Your task to perform on an android device: Add "usb-a to usb-b" to the cart on newegg Image 0: 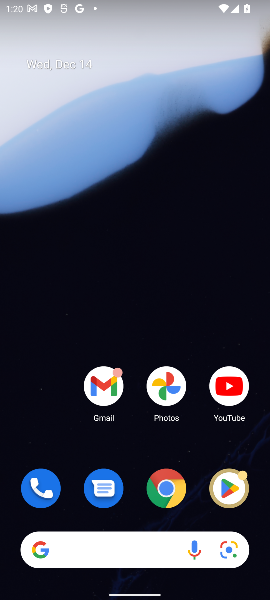
Step 0: press home button
Your task to perform on an android device: Add "usb-a to usb-b" to the cart on newegg Image 1: 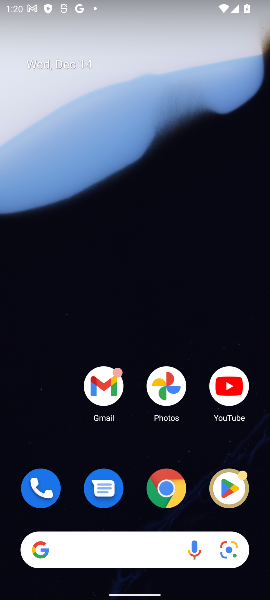
Step 1: drag from (125, 534) to (190, 189)
Your task to perform on an android device: Add "usb-a to usb-b" to the cart on newegg Image 2: 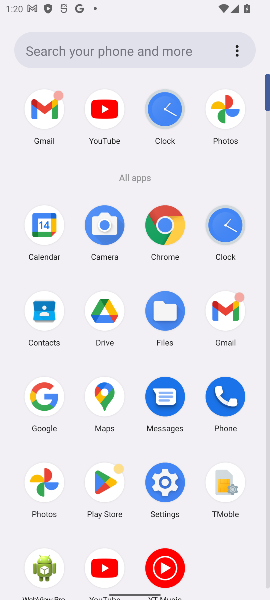
Step 2: click (43, 396)
Your task to perform on an android device: Add "usb-a to usb-b" to the cart on newegg Image 3: 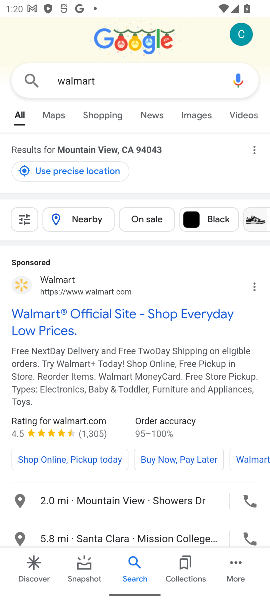
Step 3: click (94, 85)
Your task to perform on an android device: Add "usb-a to usb-b" to the cart on newegg Image 4: 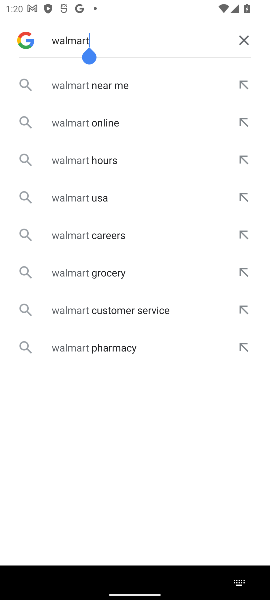
Step 4: click (244, 43)
Your task to perform on an android device: Add "usb-a to usb-b" to the cart on newegg Image 5: 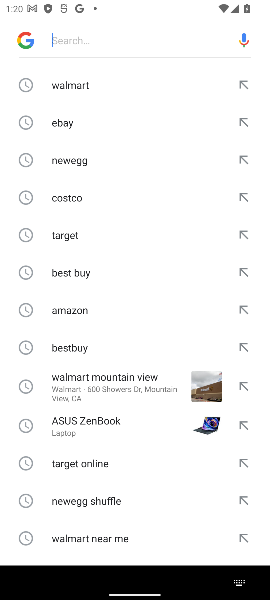
Step 5: click (66, 166)
Your task to perform on an android device: Add "usb-a to usb-b" to the cart on newegg Image 6: 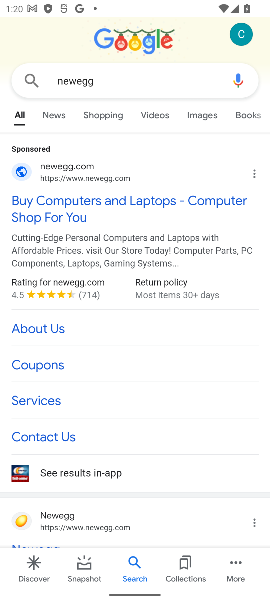
Step 6: click (75, 215)
Your task to perform on an android device: Add "usb-a to usb-b" to the cart on newegg Image 7: 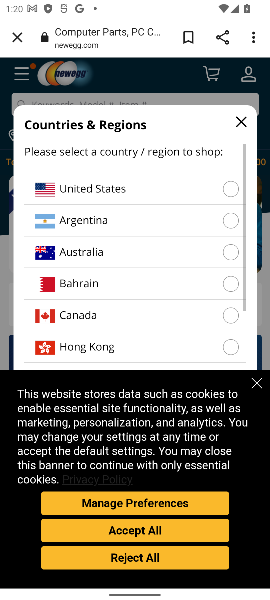
Step 7: click (241, 123)
Your task to perform on an android device: Add "usb-a to usb-b" to the cart on newegg Image 8: 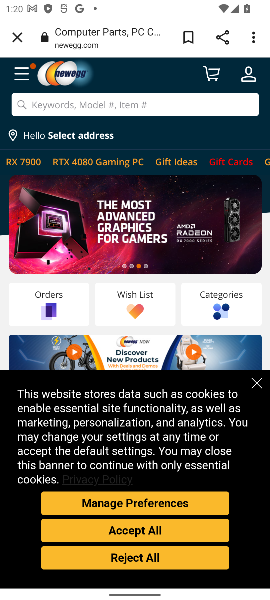
Step 8: click (36, 108)
Your task to perform on an android device: Add "usb-a to usb-b" to the cart on newegg Image 9: 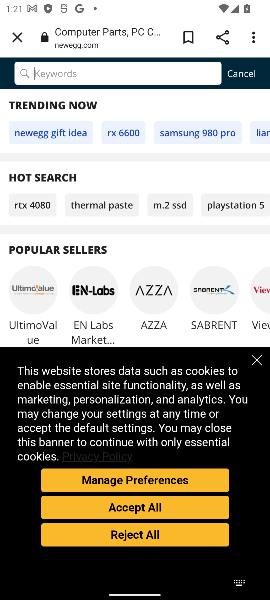
Step 9: type "usb-a to usb-b"
Your task to perform on an android device: Add "usb-a to usb-b" to the cart on newegg Image 10: 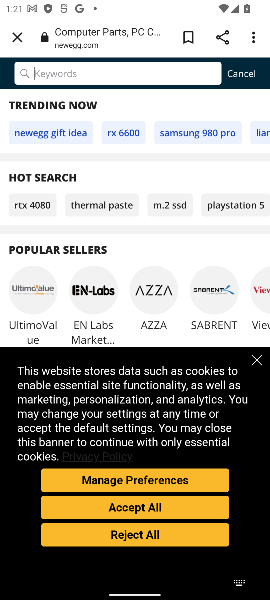
Step 10: click (22, 75)
Your task to perform on an android device: Add "usb-a to usb-b" to the cart on newegg Image 11: 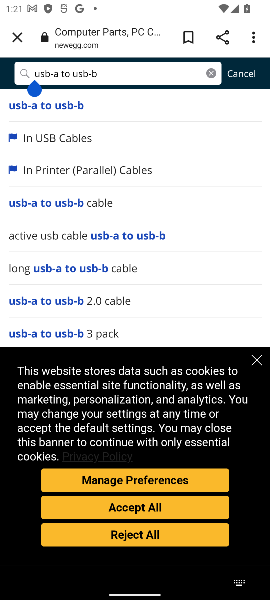
Step 11: click (60, 103)
Your task to perform on an android device: Add "usb-a to usb-b" to the cart on newegg Image 12: 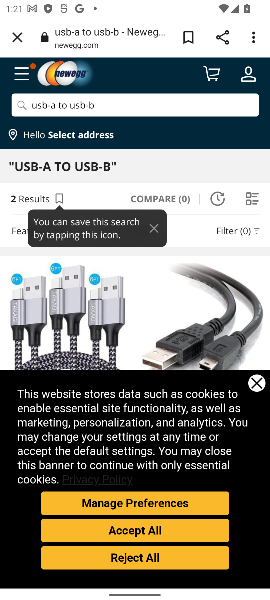
Step 12: click (253, 382)
Your task to perform on an android device: Add "usb-a to usb-b" to the cart on newegg Image 13: 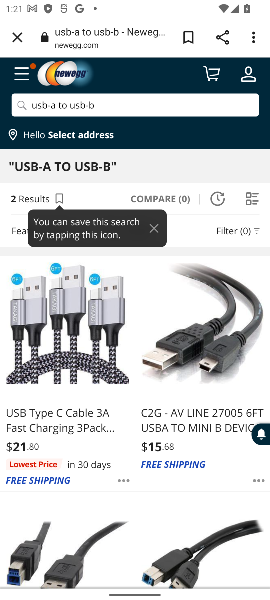
Step 13: click (65, 438)
Your task to perform on an android device: Add "usb-a to usb-b" to the cart on newegg Image 14: 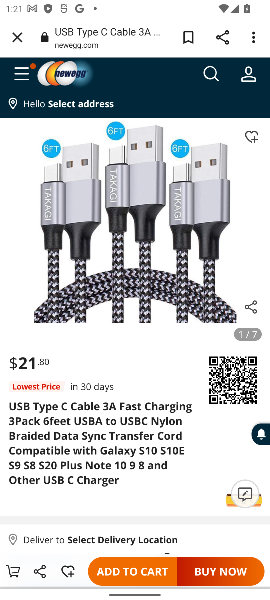
Step 14: click (146, 568)
Your task to perform on an android device: Add "usb-a to usb-b" to the cart on newegg Image 15: 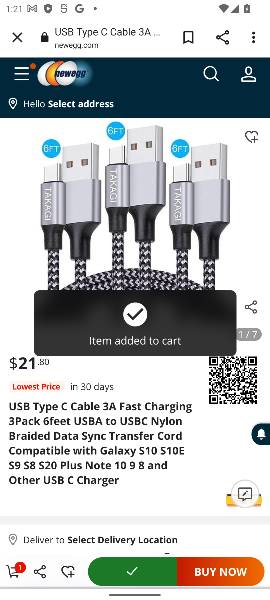
Step 15: task complete